Your task to perform on an android device: add a contact Image 0: 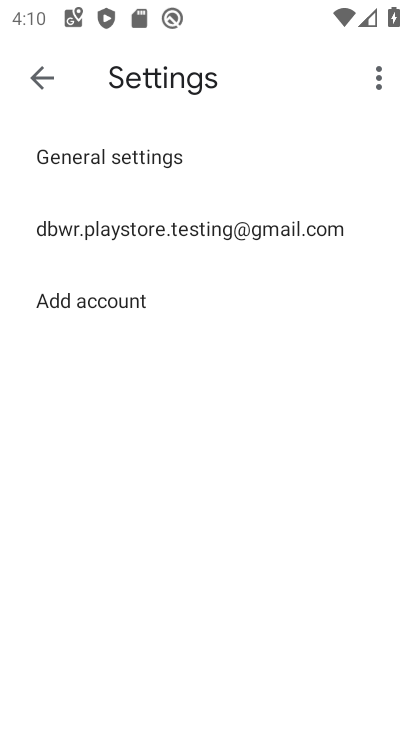
Step 0: press home button
Your task to perform on an android device: add a contact Image 1: 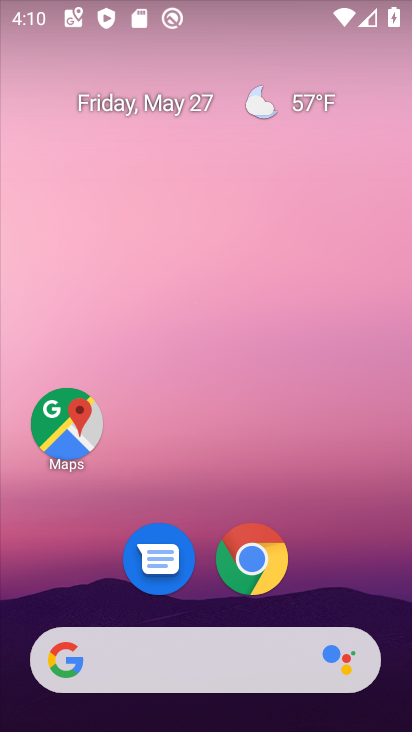
Step 1: drag from (350, 599) to (263, 16)
Your task to perform on an android device: add a contact Image 2: 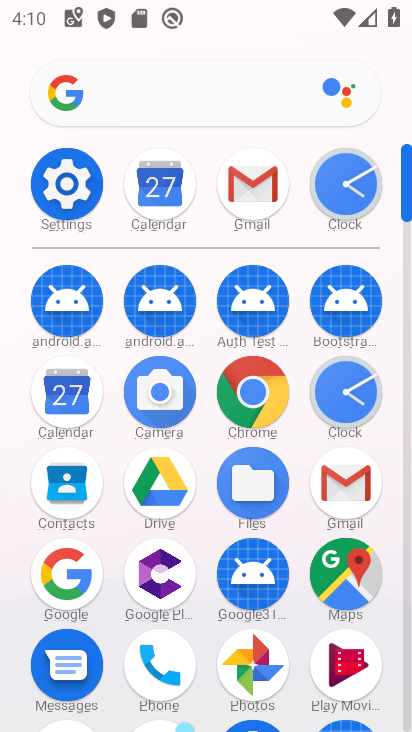
Step 2: click (84, 491)
Your task to perform on an android device: add a contact Image 3: 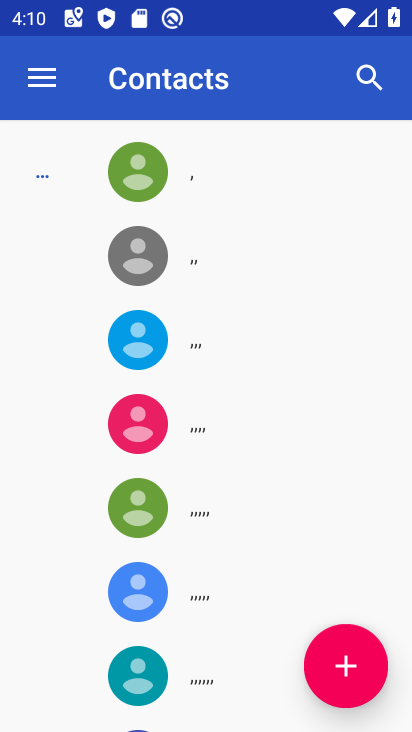
Step 3: task complete